Your task to perform on an android device: turn off wifi Image 0: 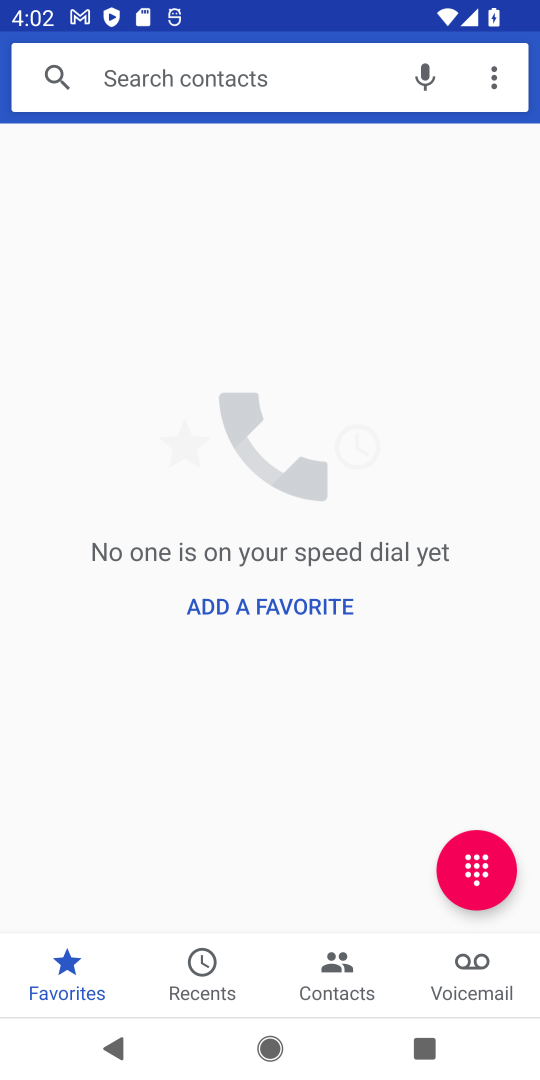
Step 0: drag from (414, 5) to (431, 913)
Your task to perform on an android device: turn off wifi Image 1: 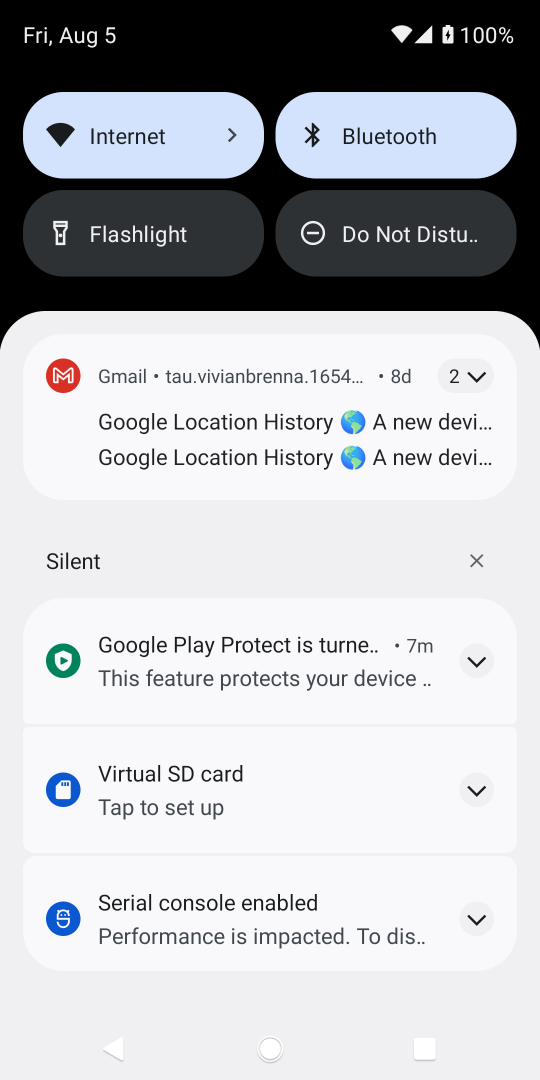
Step 1: click (151, 122)
Your task to perform on an android device: turn off wifi Image 2: 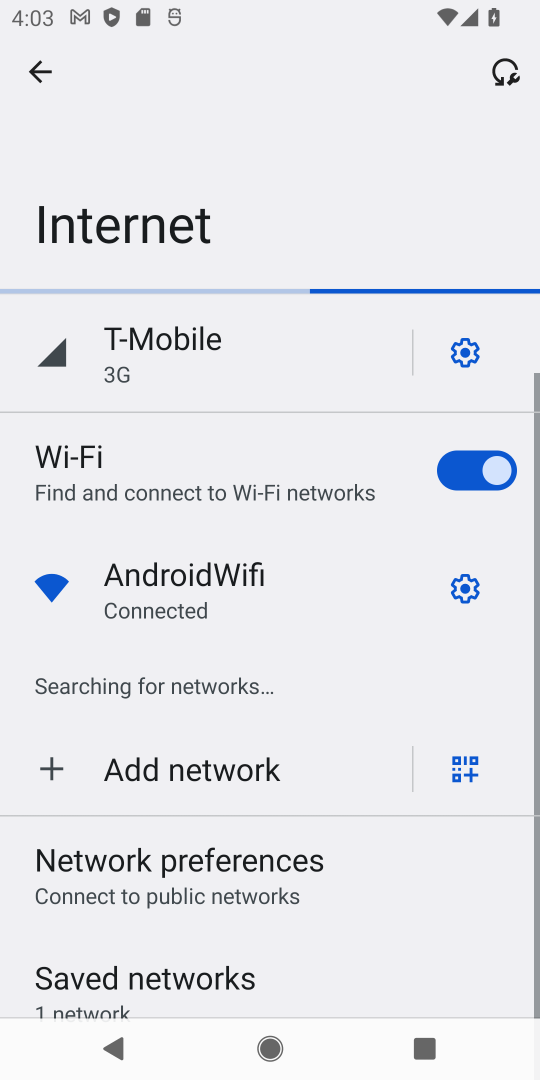
Step 2: click (480, 474)
Your task to perform on an android device: turn off wifi Image 3: 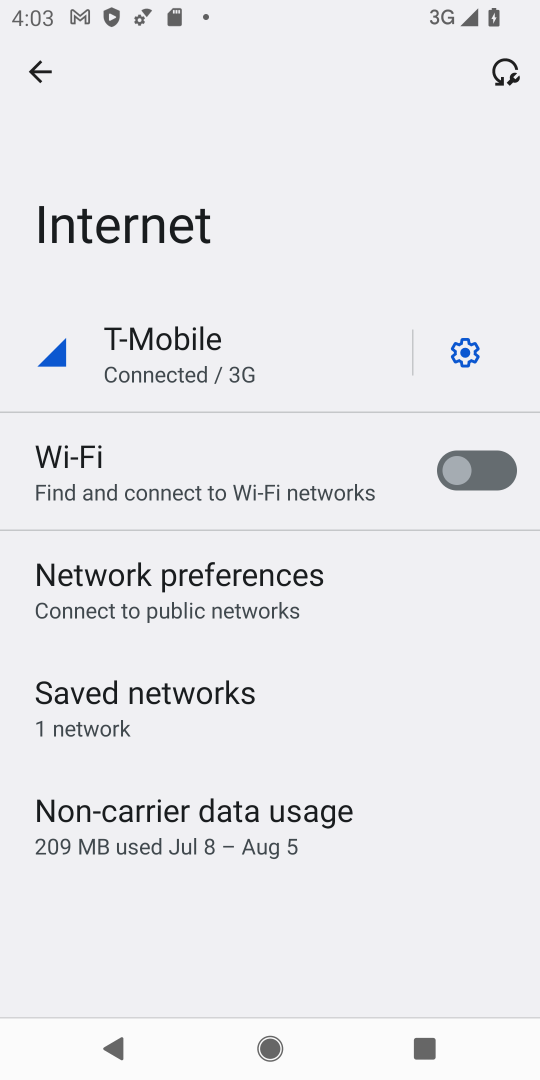
Step 3: task complete